Your task to perform on an android device: clear history in the chrome app Image 0: 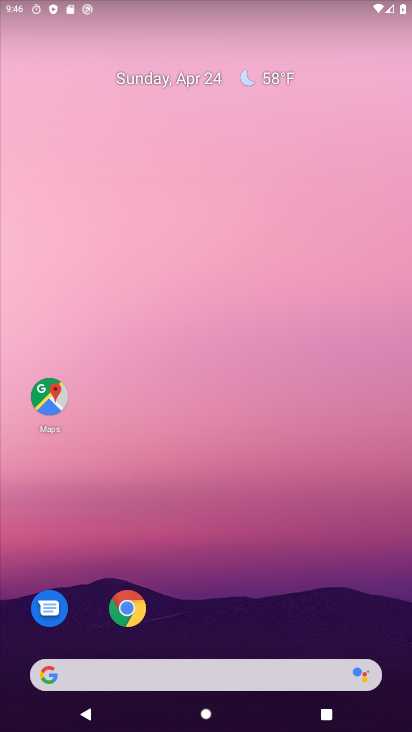
Step 0: drag from (355, 606) to (334, 80)
Your task to perform on an android device: clear history in the chrome app Image 1: 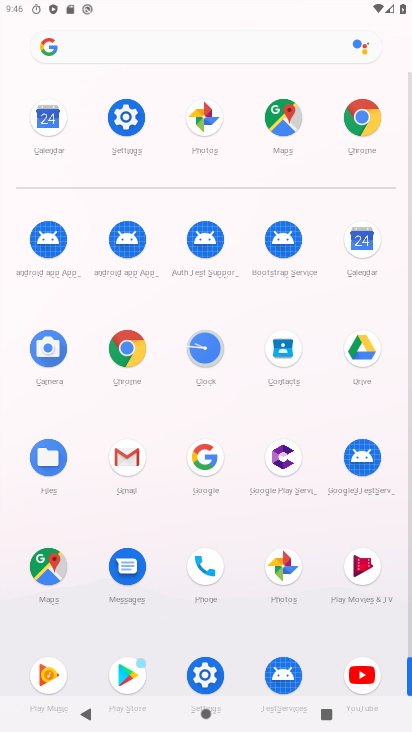
Step 1: click (362, 118)
Your task to perform on an android device: clear history in the chrome app Image 2: 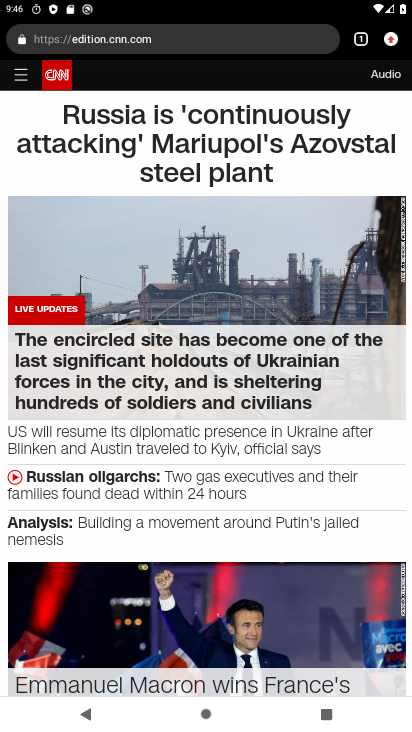
Step 2: click (389, 36)
Your task to perform on an android device: clear history in the chrome app Image 3: 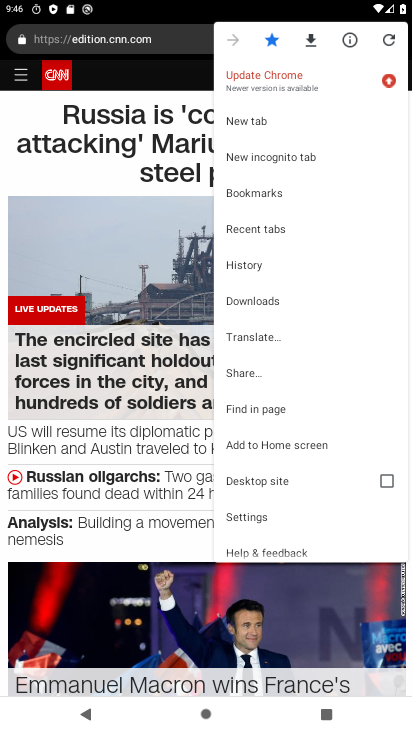
Step 3: click (250, 271)
Your task to perform on an android device: clear history in the chrome app Image 4: 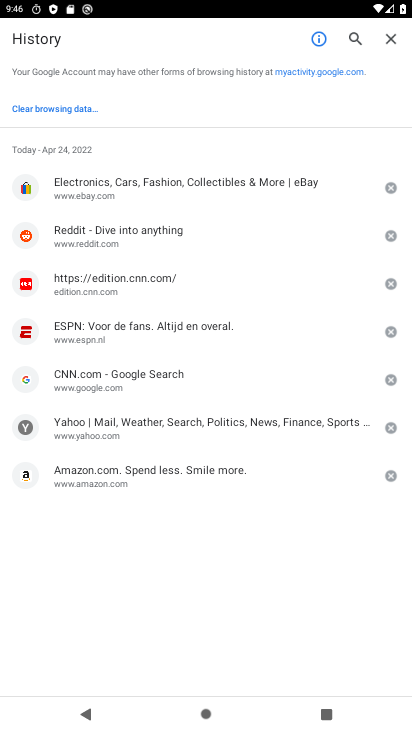
Step 4: click (63, 110)
Your task to perform on an android device: clear history in the chrome app Image 5: 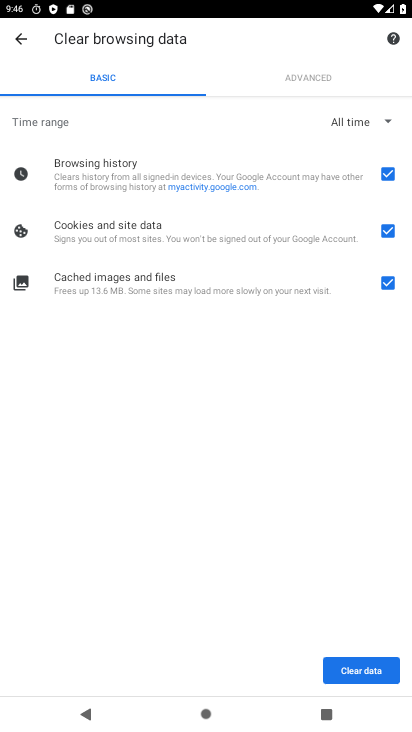
Step 5: click (372, 669)
Your task to perform on an android device: clear history in the chrome app Image 6: 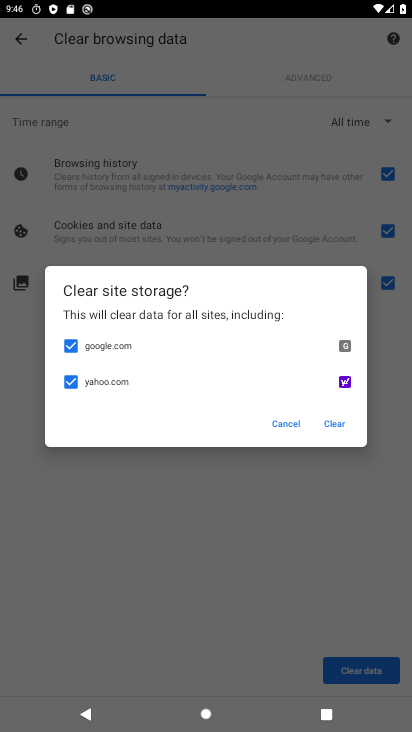
Step 6: click (325, 430)
Your task to perform on an android device: clear history in the chrome app Image 7: 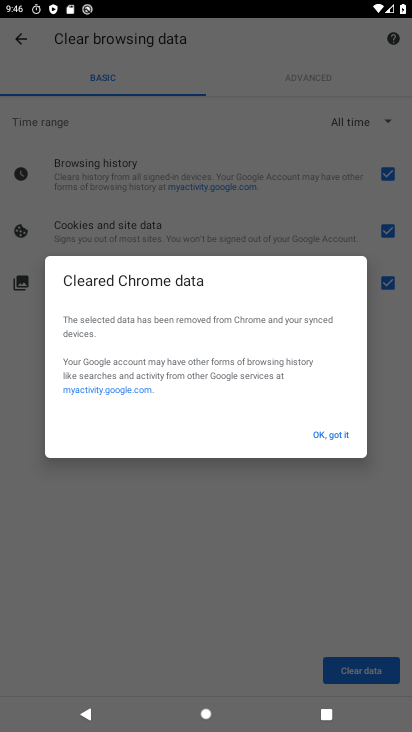
Step 7: click (349, 445)
Your task to perform on an android device: clear history in the chrome app Image 8: 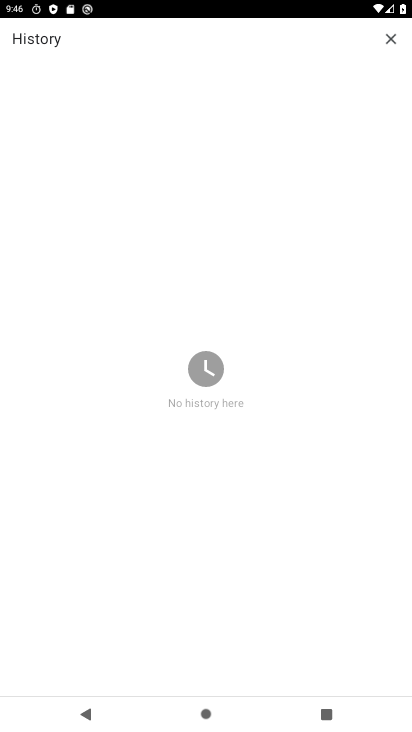
Step 8: task complete